Your task to perform on an android device: search for starred emails in the gmail app Image 0: 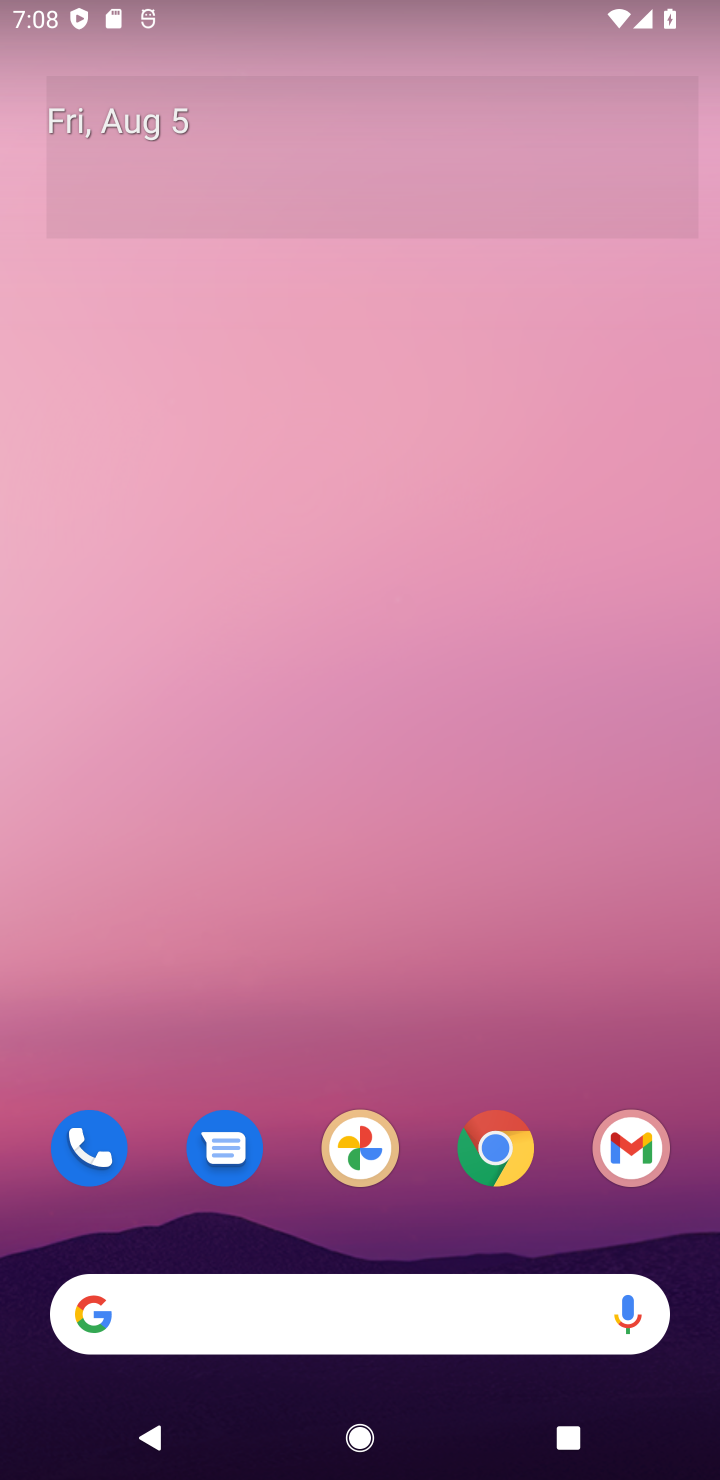
Step 0: click (618, 1169)
Your task to perform on an android device: search for starred emails in the gmail app Image 1: 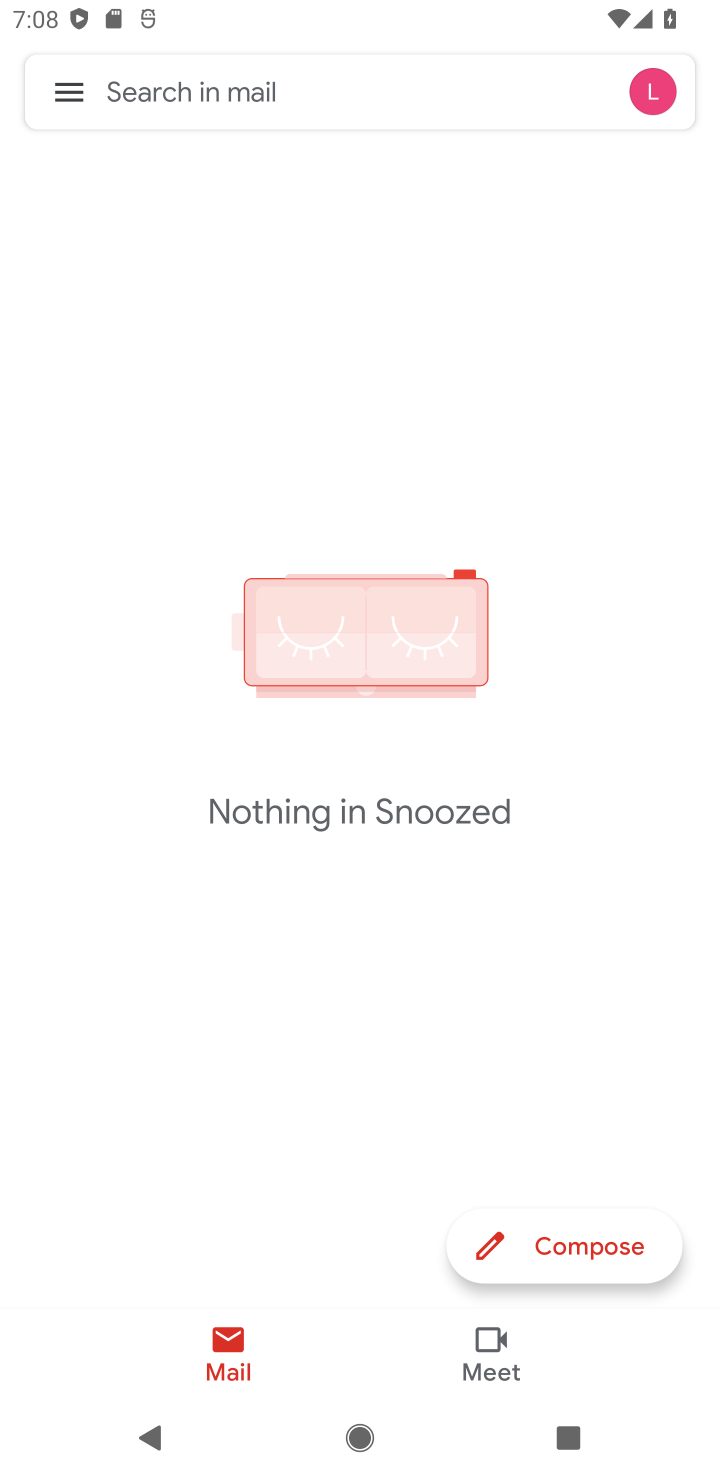
Step 1: click (70, 101)
Your task to perform on an android device: search for starred emails in the gmail app Image 2: 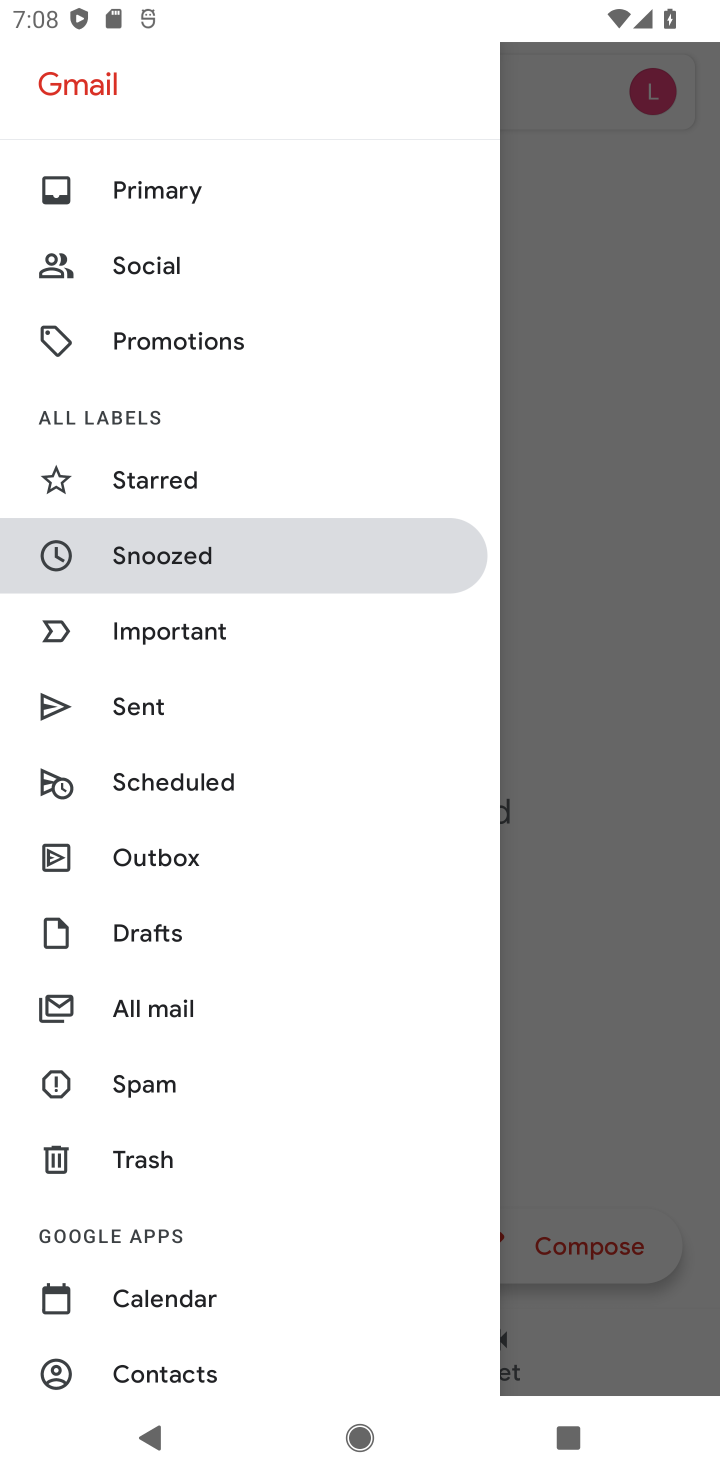
Step 2: click (154, 483)
Your task to perform on an android device: search for starred emails in the gmail app Image 3: 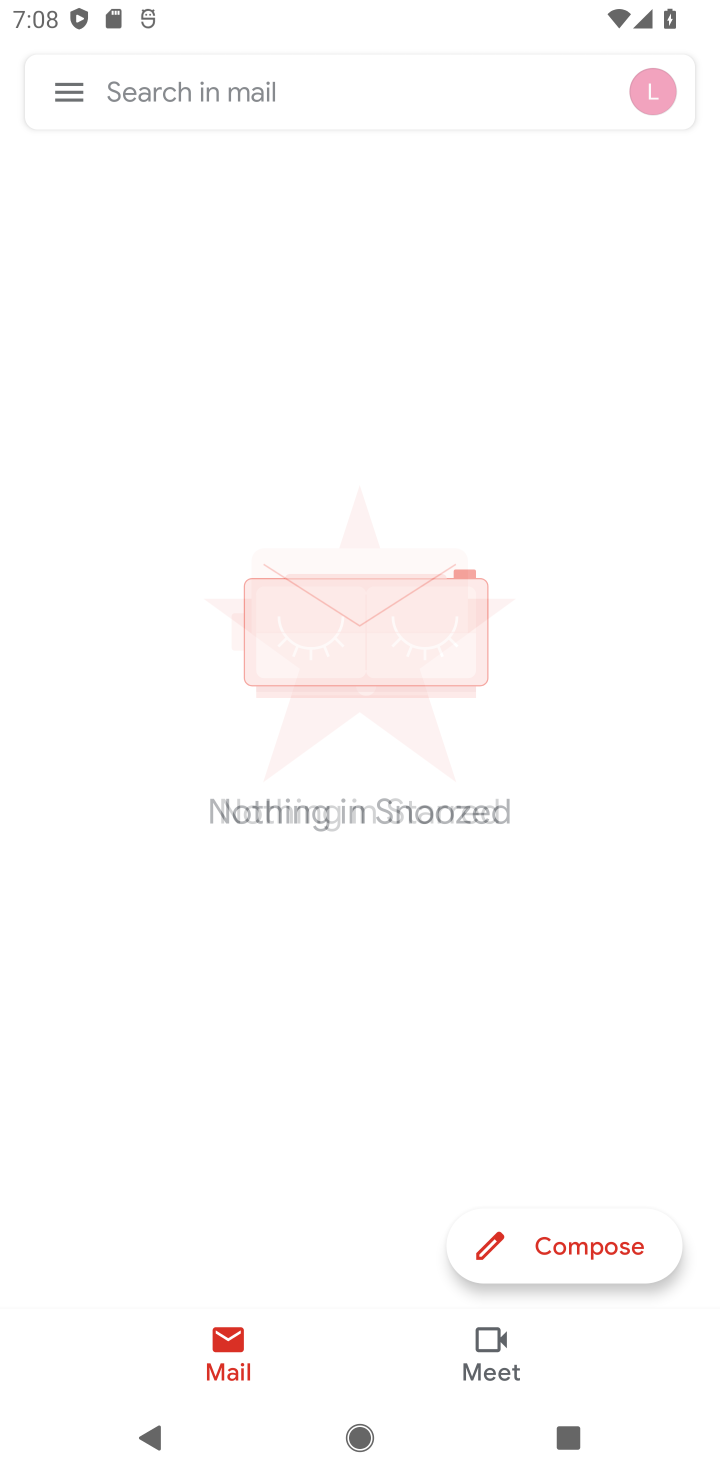
Step 3: task complete